Your task to perform on an android device: Do I have any events tomorrow? Image 0: 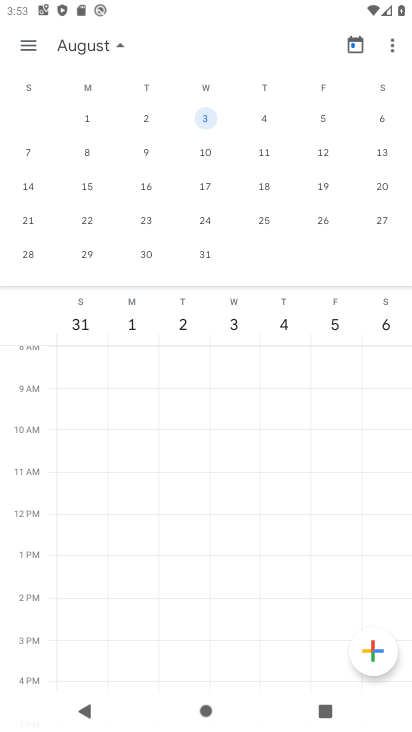
Step 0: click (64, 39)
Your task to perform on an android device: Do I have any events tomorrow? Image 1: 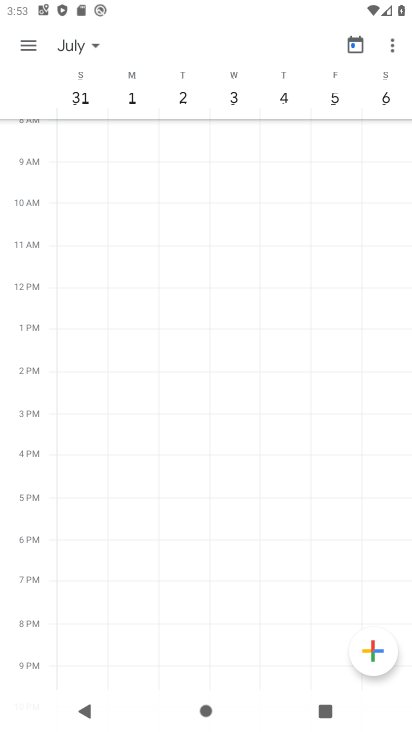
Step 1: click (91, 47)
Your task to perform on an android device: Do I have any events tomorrow? Image 2: 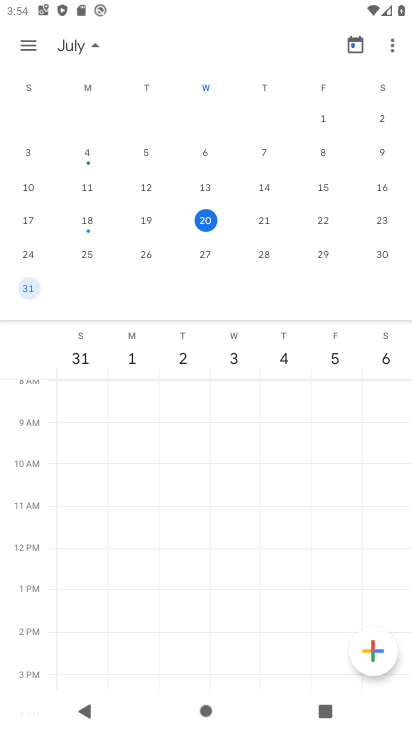
Step 2: click (255, 224)
Your task to perform on an android device: Do I have any events tomorrow? Image 3: 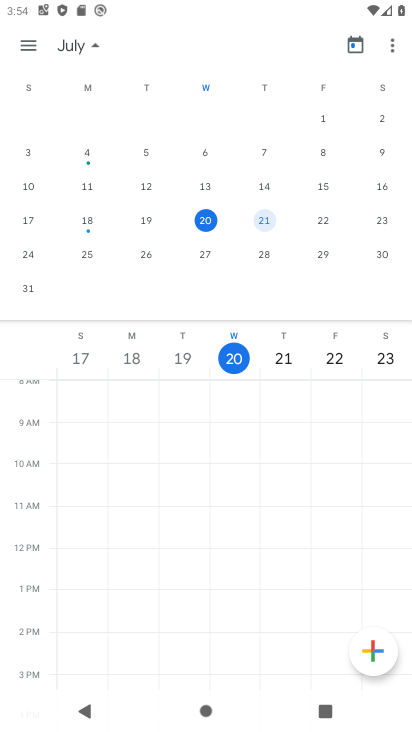
Step 3: click (226, 349)
Your task to perform on an android device: Do I have any events tomorrow? Image 4: 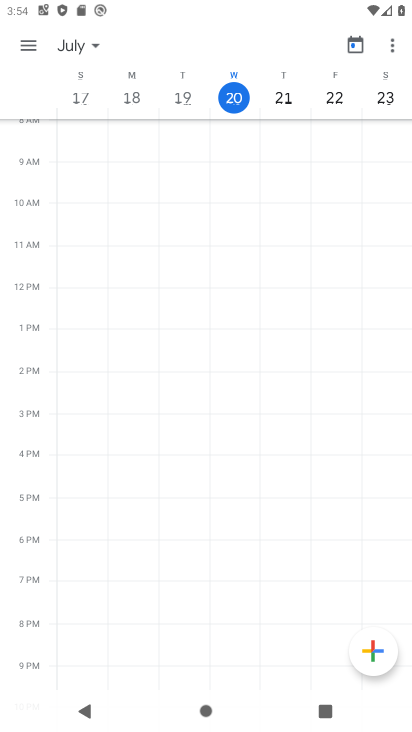
Step 4: click (280, 91)
Your task to perform on an android device: Do I have any events tomorrow? Image 5: 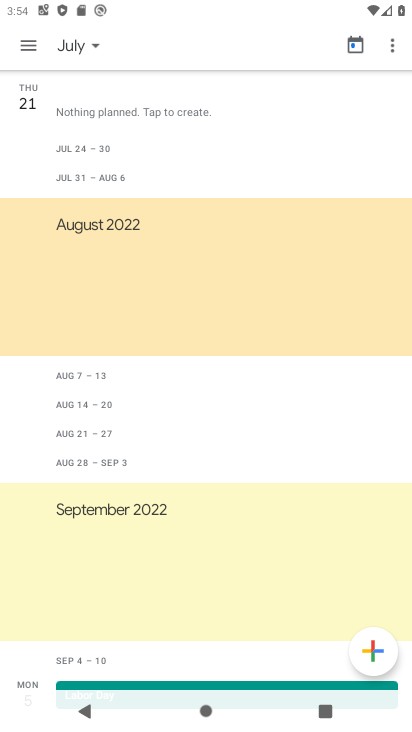
Step 5: task complete